Your task to perform on an android device: change the upload size in google photos Image 0: 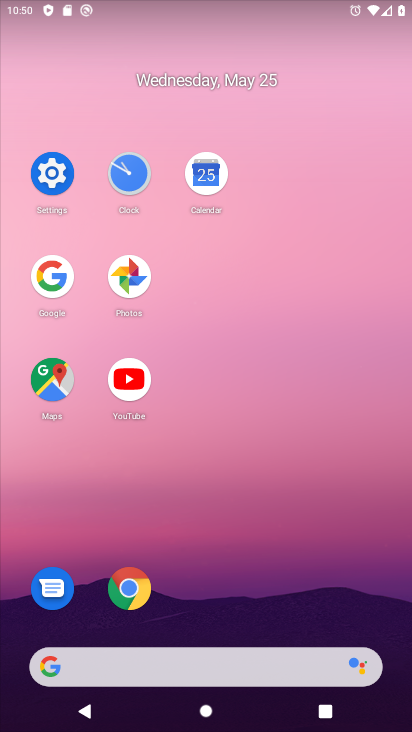
Step 0: click (44, 183)
Your task to perform on an android device: change the upload size in google photos Image 1: 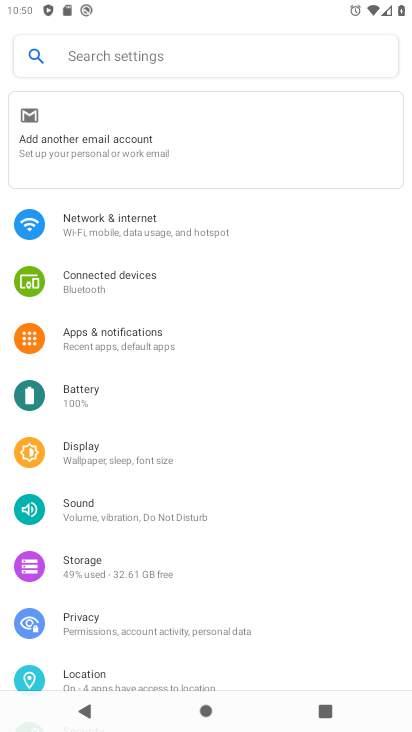
Step 1: press home button
Your task to perform on an android device: change the upload size in google photos Image 2: 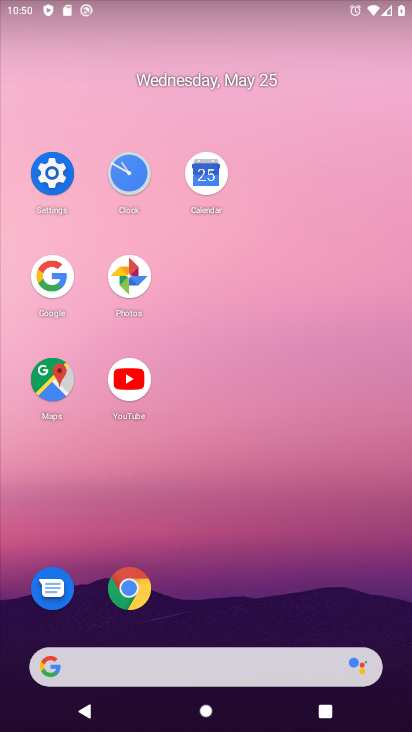
Step 2: click (147, 273)
Your task to perform on an android device: change the upload size in google photos Image 3: 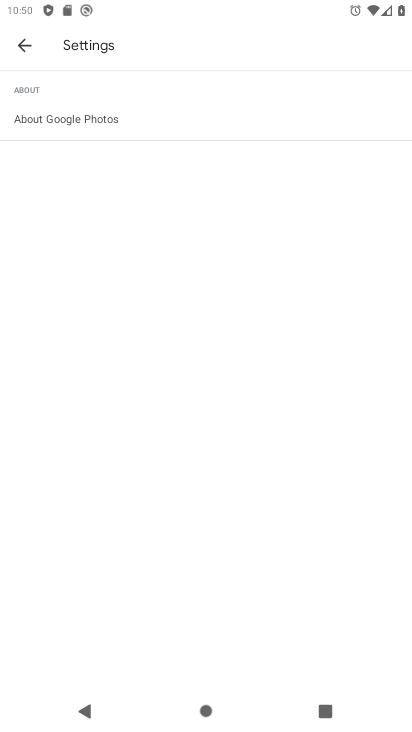
Step 3: click (15, 45)
Your task to perform on an android device: change the upload size in google photos Image 4: 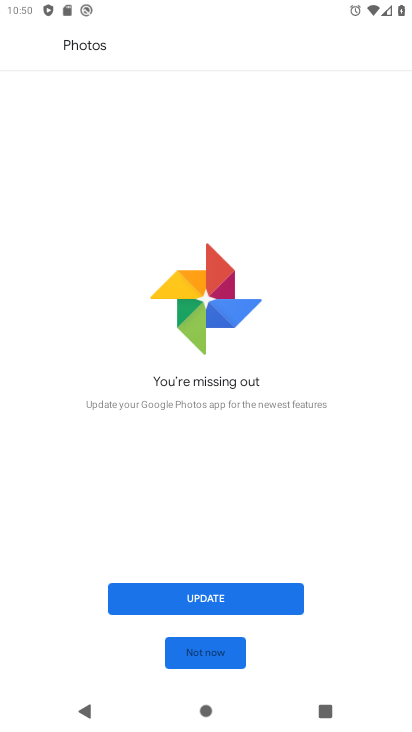
Step 4: click (276, 584)
Your task to perform on an android device: change the upload size in google photos Image 5: 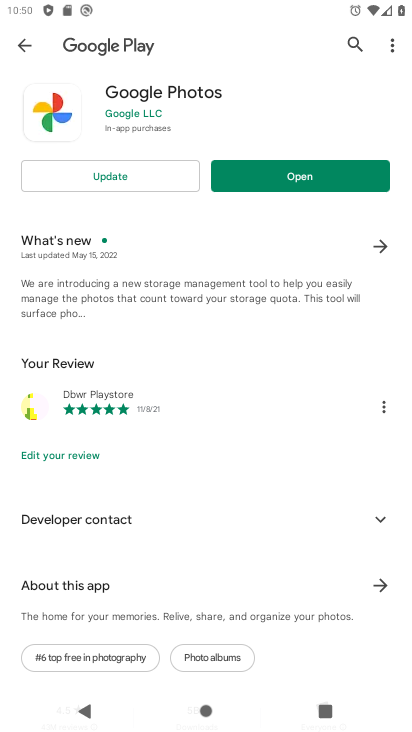
Step 5: click (134, 181)
Your task to perform on an android device: change the upload size in google photos Image 6: 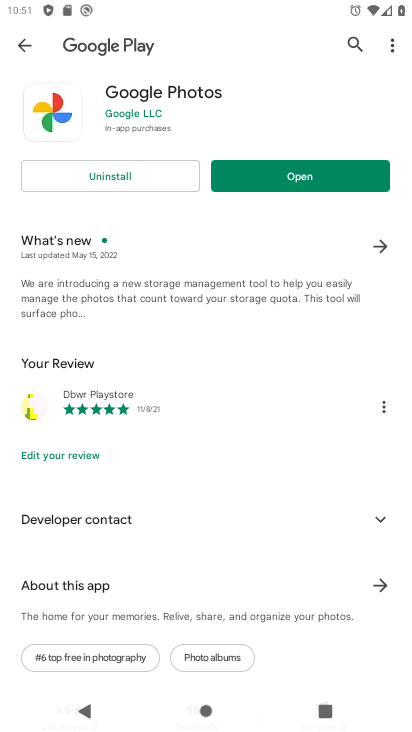
Step 6: click (317, 171)
Your task to perform on an android device: change the upload size in google photos Image 7: 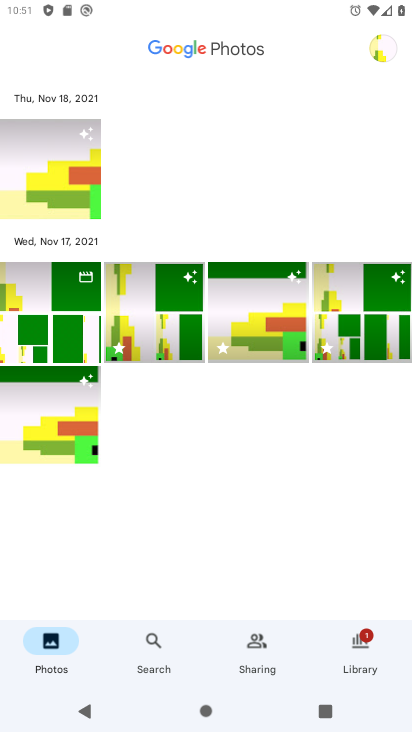
Step 7: click (376, 45)
Your task to perform on an android device: change the upload size in google photos Image 8: 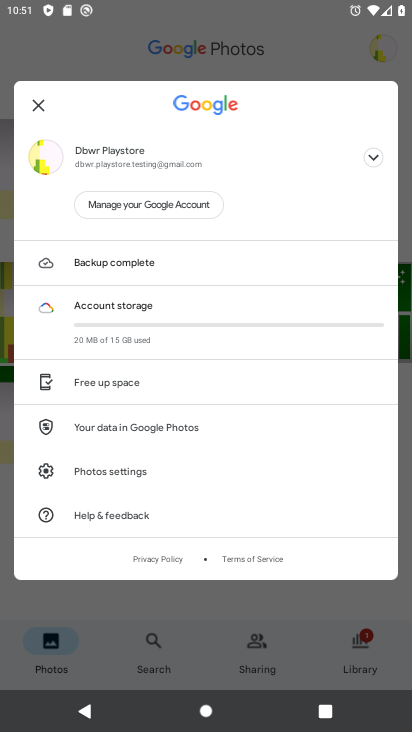
Step 8: click (191, 459)
Your task to perform on an android device: change the upload size in google photos Image 9: 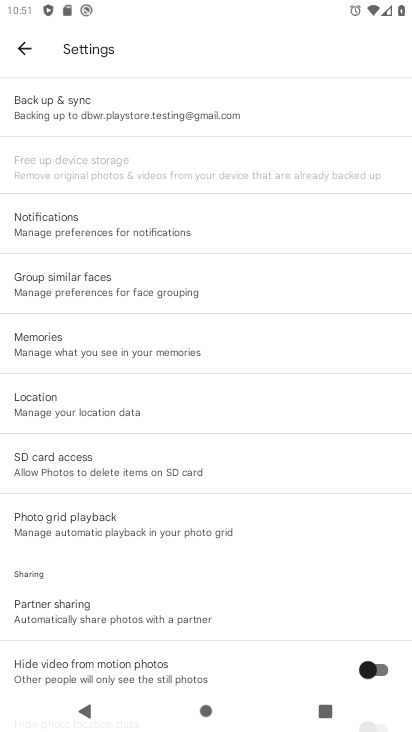
Step 9: click (86, 120)
Your task to perform on an android device: change the upload size in google photos Image 10: 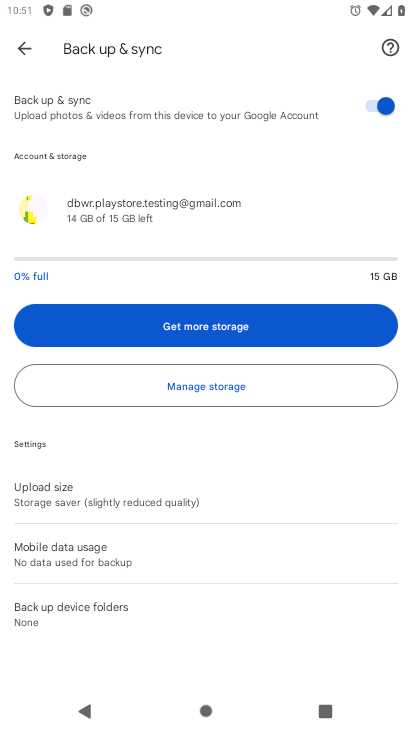
Step 10: click (136, 481)
Your task to perform on an android device: change the upload size in google photos Image 11: 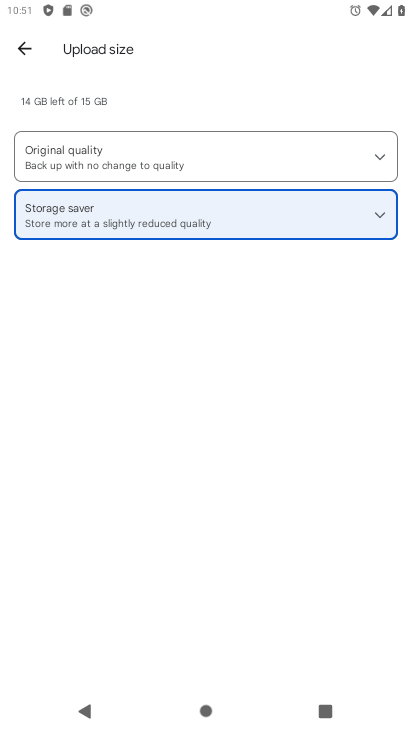
Step 11: click (206, 143)
Your task to perform on an android device: change the upload size in google photos Image 12: 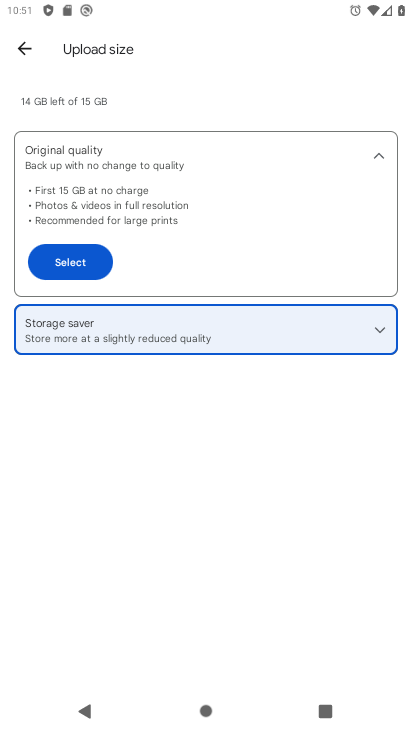
Step 12: click (80, 257)
Your task to perform on an android device: change the upload size in google photos Image 13: 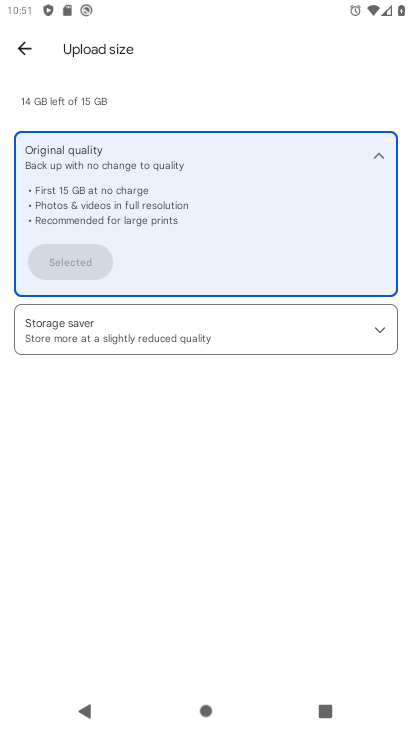
Step 13: task complete